Your task to perform on an android device: What is the recent news? Image 0: 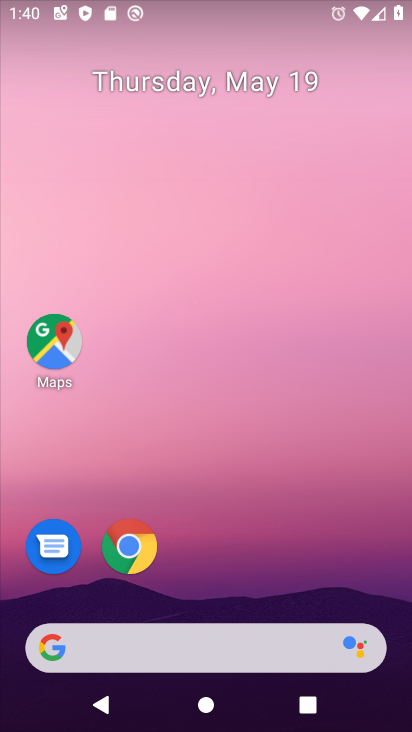
Step 0: click (133, 547)
Your task to perform on an android device: What is the recent news? Image 1: 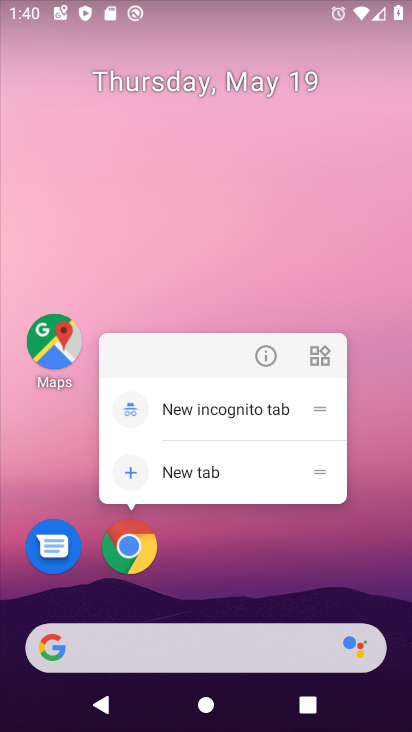
Step 1: click (266, 340)
Your task to perform on an android device: What is the recent news? Image 2: 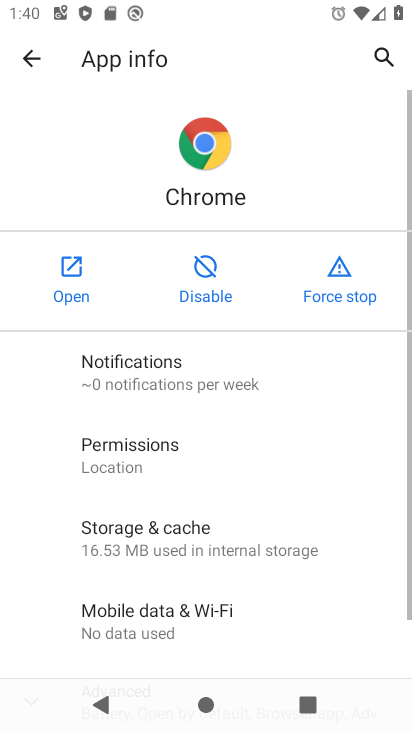
Step 2: click (65, 282)
Your task to perform on an android device: What is the recent news? Image 3: 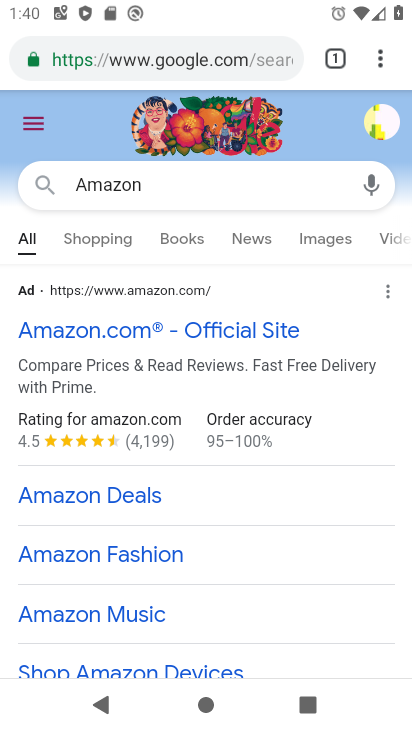
Step 3: click (75, 46)
Your task to perform on an android device: What is the recent news? Image 4: 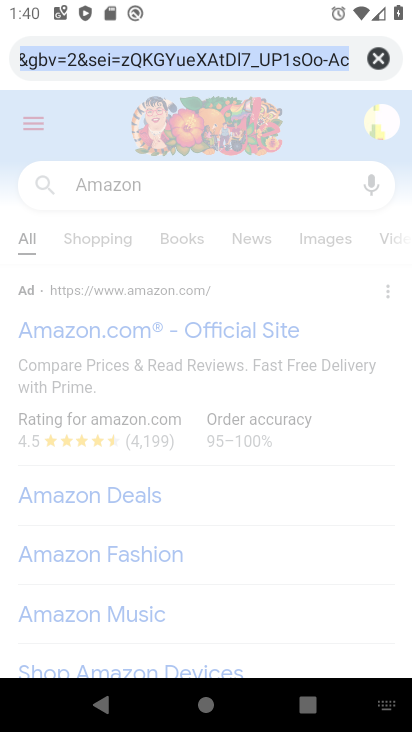
Step 4: type "recent news"
Your task to perform on an android device: What is the recent news? Image 5: 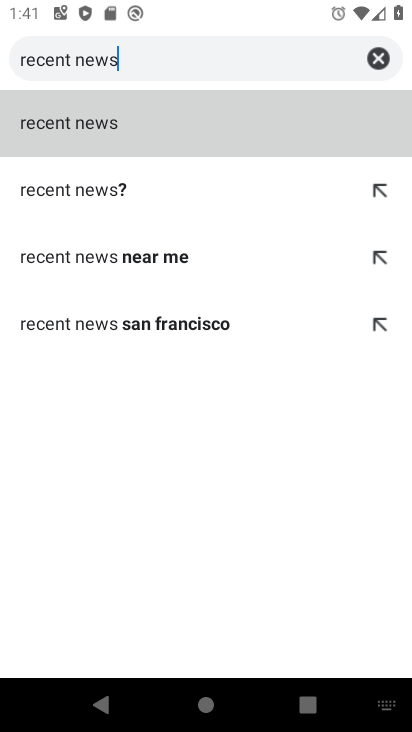
Step 5: click (38, 138)
Your task to perform on an android device: What is the recent news? Image 6: 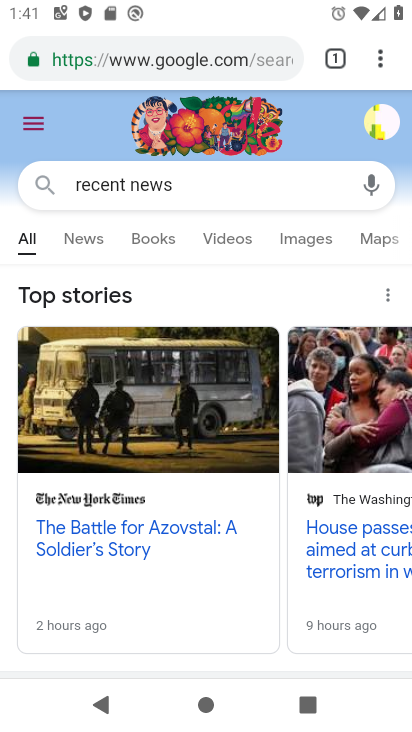
Step 6: task complete